Your task to perform on an android device: empty trash in google photos Image 0: 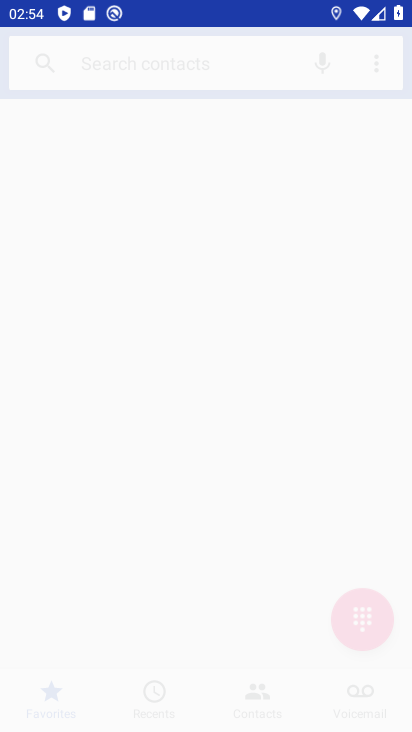
Step 0: drag from (393, 607) to (300, 226)
Your task to perform on an android device: empty trash in google photos Image 1: 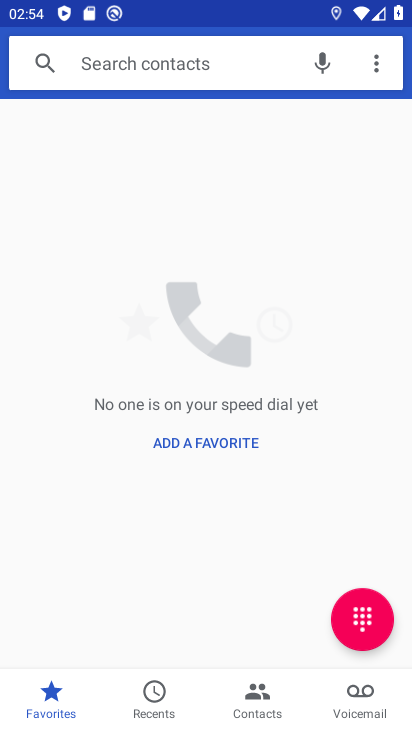
Step 1: press home button
Your task to perform on an android device: empty trash in google photos Image 2: 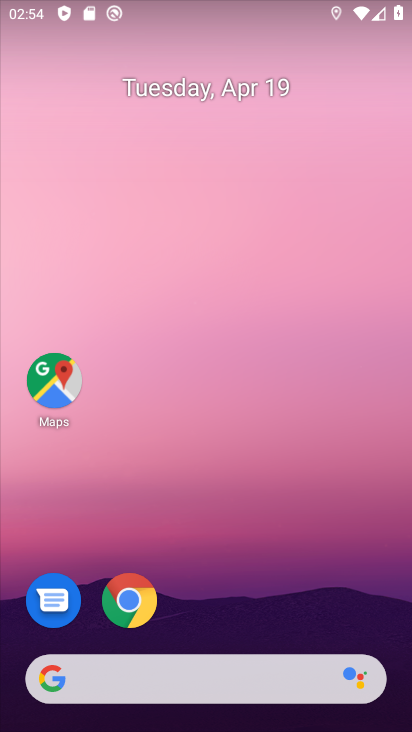
Step 2: drag from (240, 606) to (382, 218)
Your task to perform on an android device: empty trash in google photos Image 3: 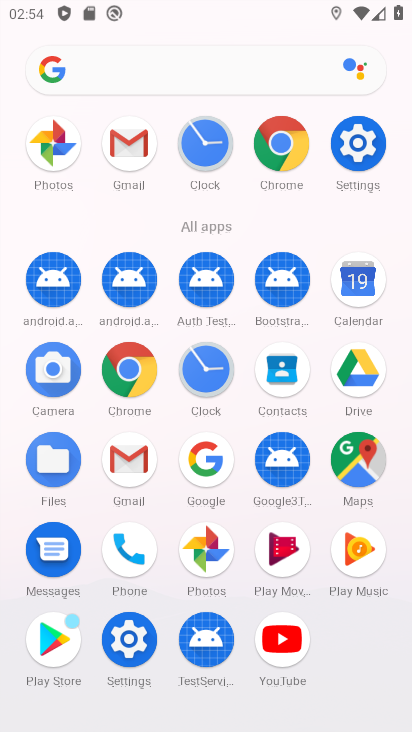
Step 3: click (56, 145)
Your task to perform on an android device: empty trash in google photos Image 4: 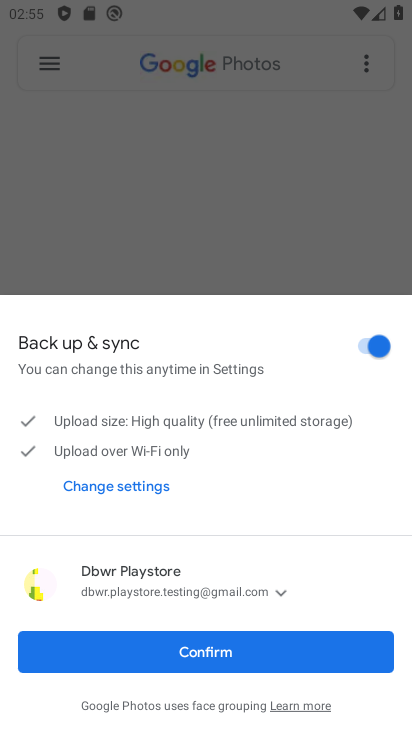
Step 4: click (227, 651)
Your task to perform on an android device: empty trash in google photos Image 5: 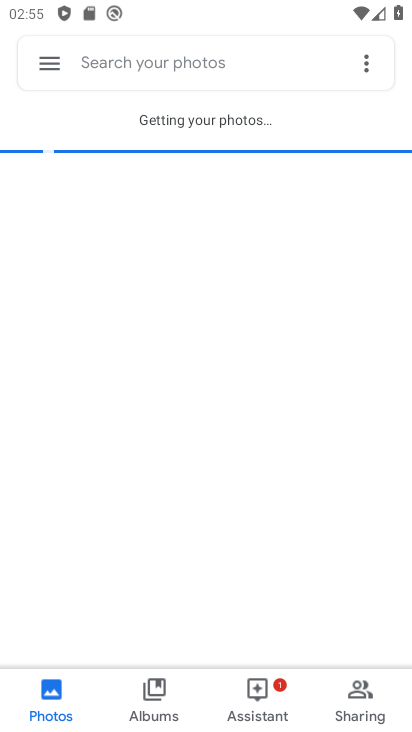
Step 5: click (41, 58)
Your task to perform on an android device: empty trash in google photos Image 6: 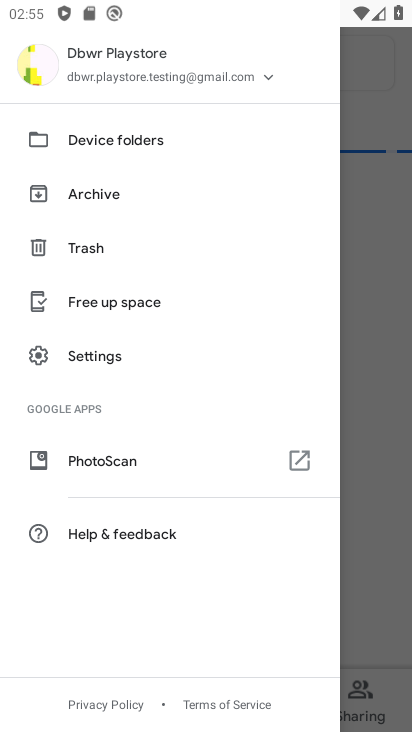
Step 6: click (117, 257)
Your task to perform on an android device: empty trash in google photos Image 7: 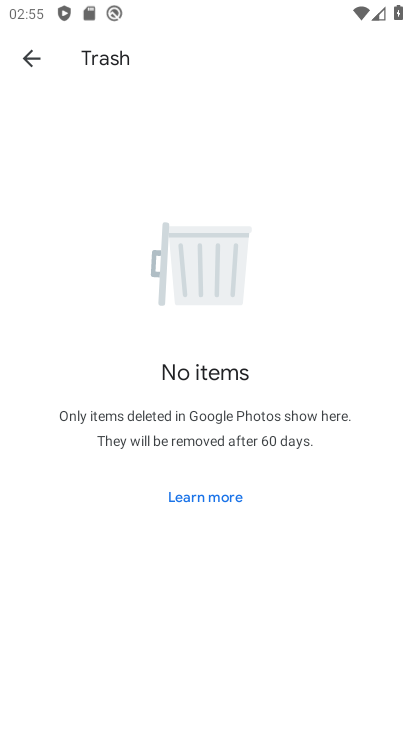
Step 7: task complete